Your task to perform on an android device: Open Maps and search for coffee Image 0: 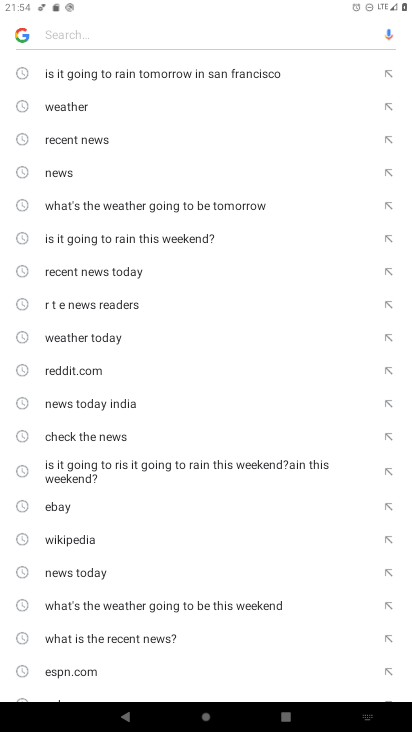
Step 0: press home button
Your task to perform on an android device: Open Maps and search for coffee Image 1: 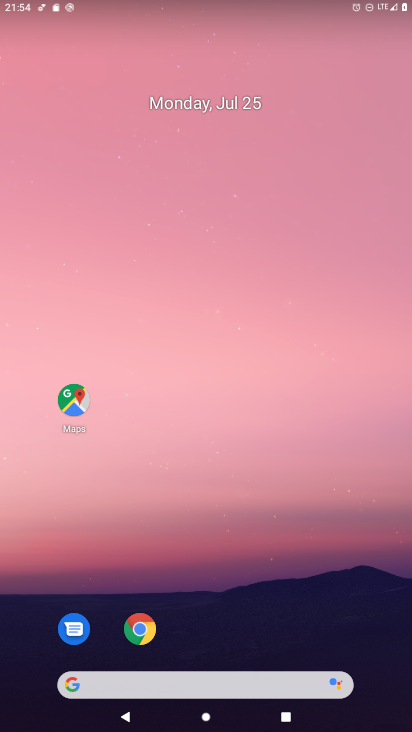
Step 1: click (72, 400)
Your task to perform on an android device: Open Maps and search for coffee Image 2: 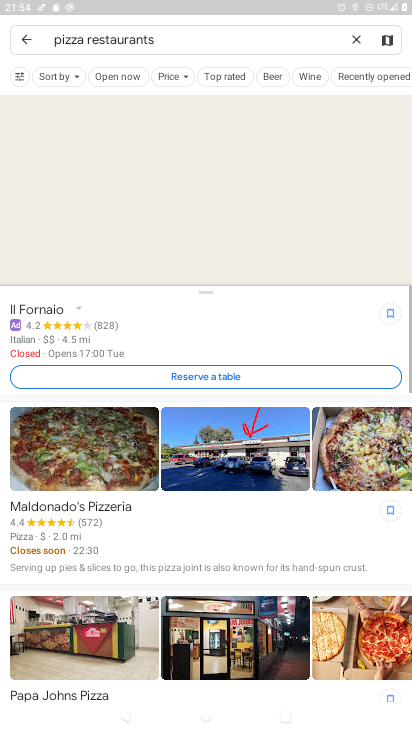
Step 2: click (355, 42)
Your task to perform on an android device: Open Maps and search for coffee Image 3: 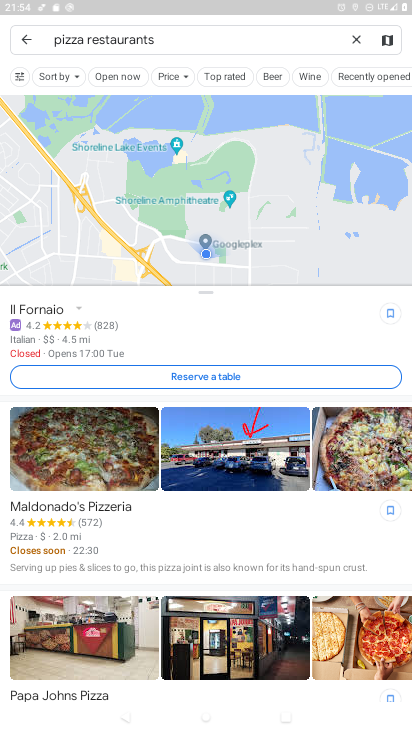
Step 3: click (355, 35)
Your task to perform on an android device: Open Maps and search for coffee Image 4: 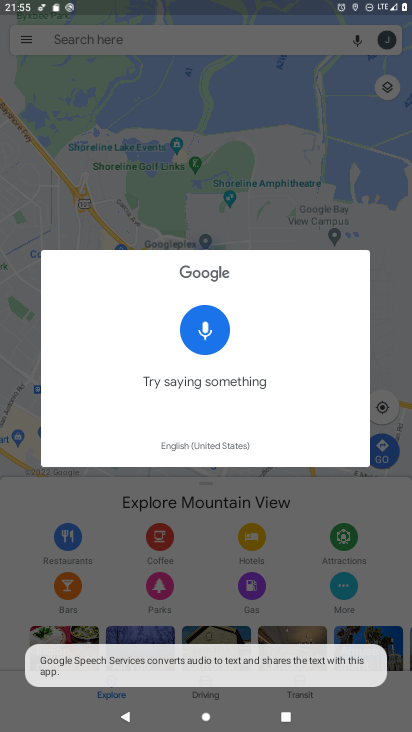
Step 4: click (249, 43)
Your task to perform on an android device: Open Maps and search for coffee Image 5: 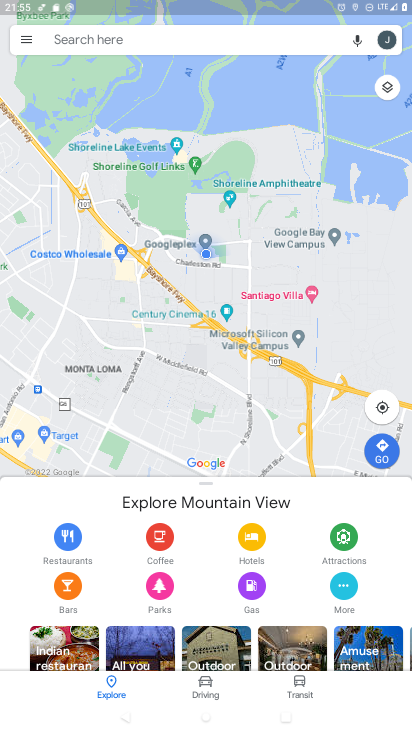
Step 5: click (249, 43)
Your task to perform on an android device: Open Maps and search for coffee Image 6: 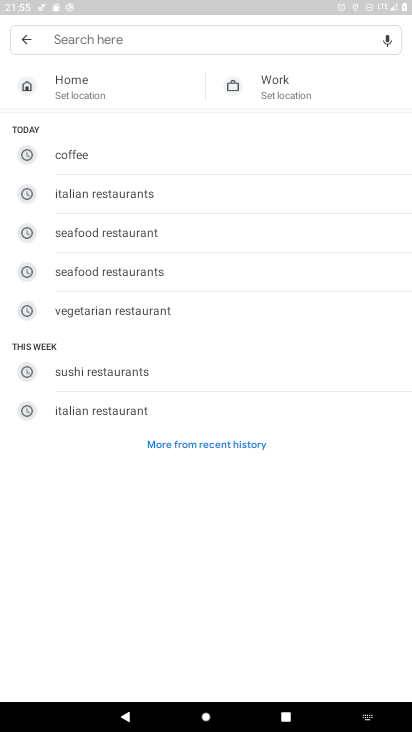
Step 6: type "coffee"
Your task to perform on an android device: Open Maps and search for coffee Image 7: 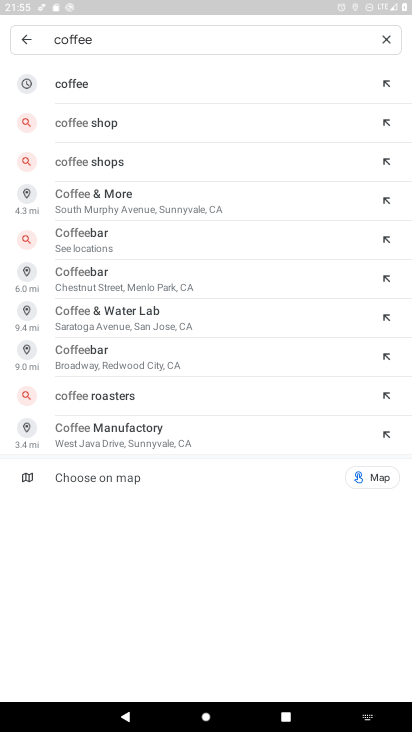
Step 7: click (64, 88)
Your task to perform on an android device: Open Maps and search for coffee Image 8: 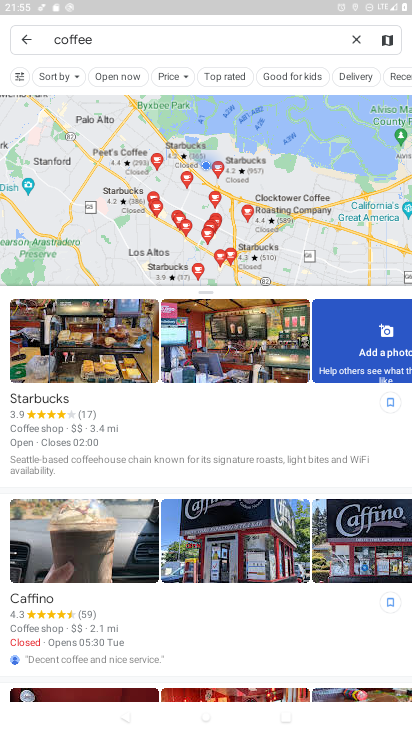
Step 8: task complete